Your task to perform on an android device: add a contact Image 0: 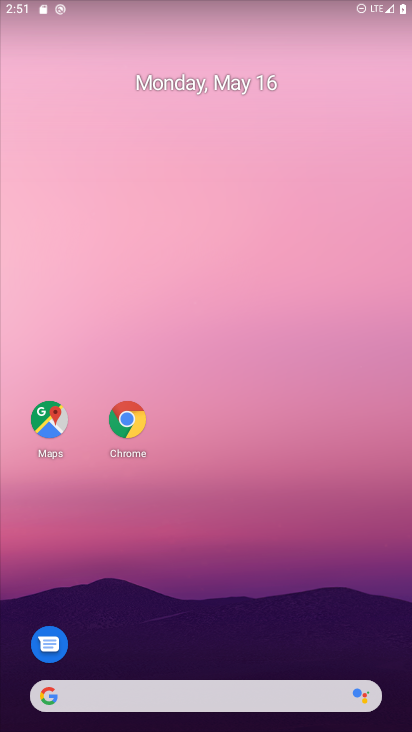
Step 0: drag from (183, 624) to (120, 155)
Your task to perform on an android device: add a contact Image 1: 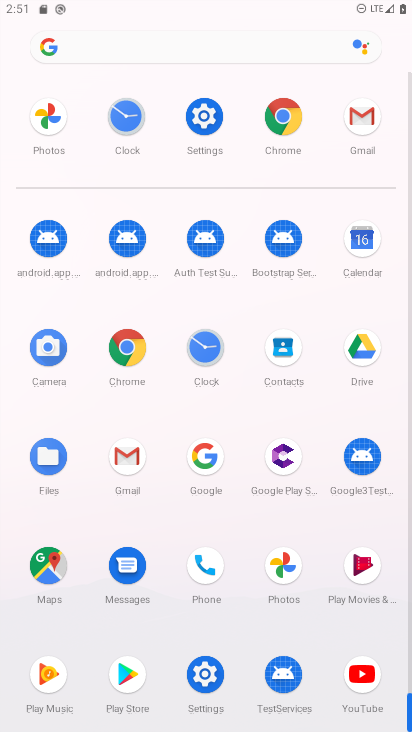
Step 1: click (285, 351)
Your task to perform on an android device: add a contact Image 2: 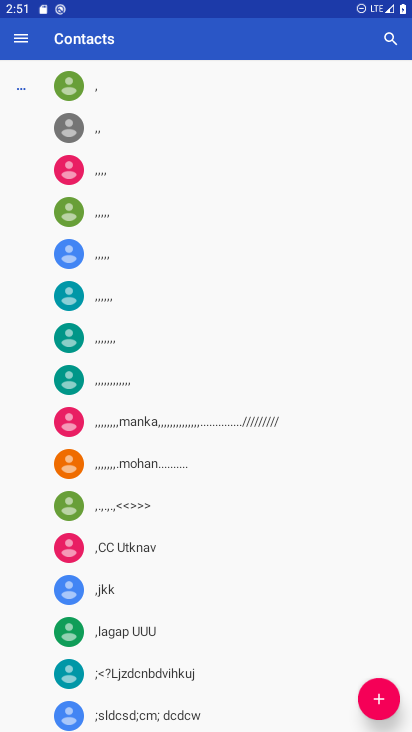
Step 2: drag from (252, 643) to (203, 331)
Your task to perform on an android device: add a contact Image 3: 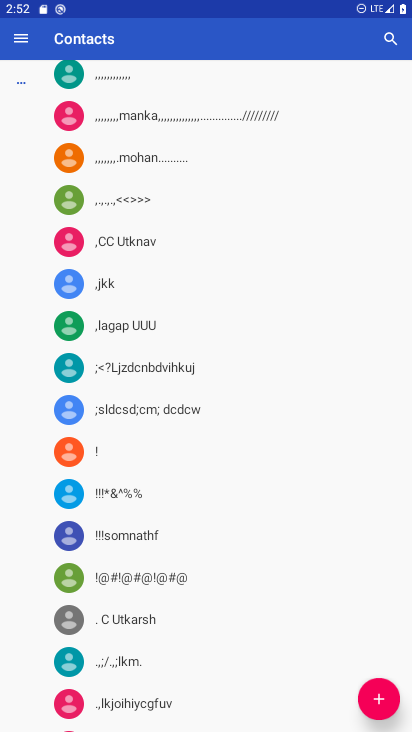
Step 3: drag from (153, 560) to (153, 277)
Your task to perform on an android device: add a contact Image 4: 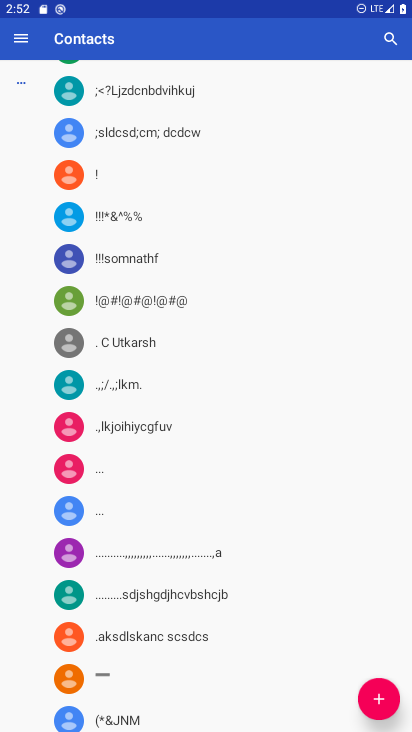
Step 4: drag from (197, 575) to (167, 303)
Your task to perform on an android device: add a contact Image 5: 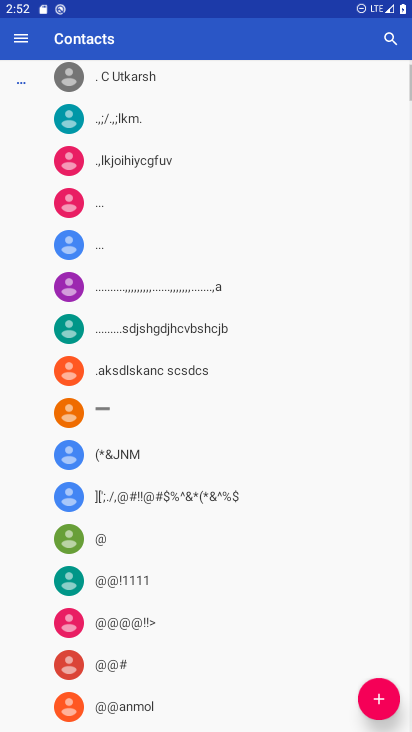
Step 5: click (383, 699)
Your task to perform on an android device: add a contact Image 6: 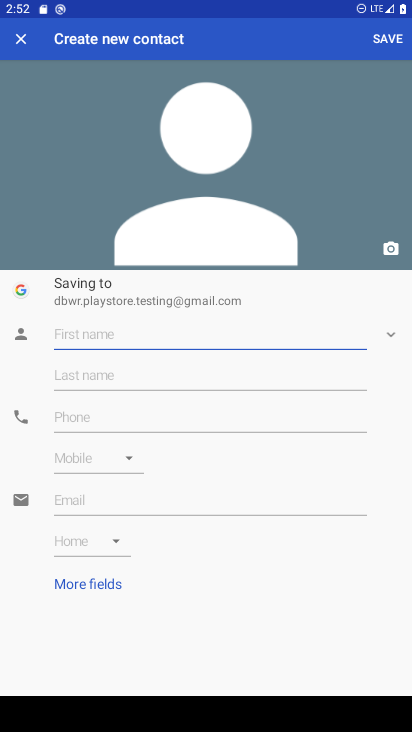
Step 6: click (129, 322)
Your task to perform on an android device: add a contact Image 7: 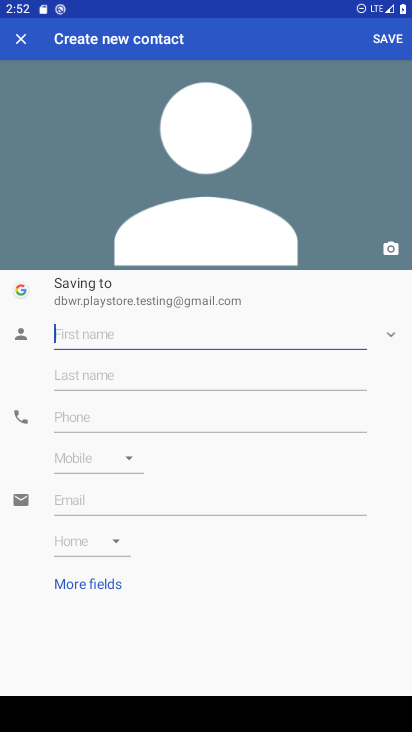
Step 7: type "fgtdv"
Your task to perform on an android device: add a contact Image 8: 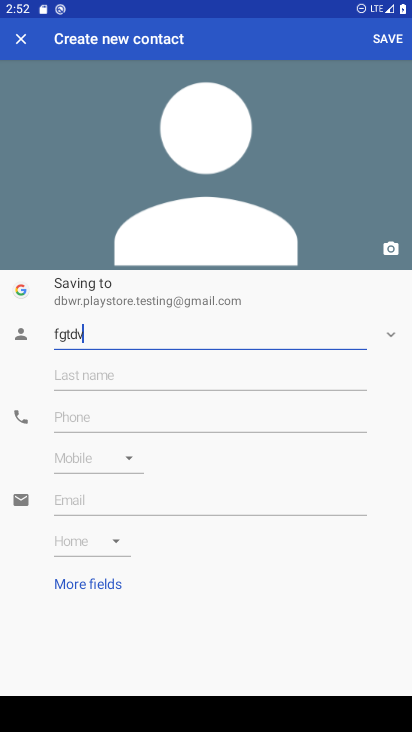
Step 8: click (390, 39)
Your task to perform on an android device: add a contact Image 9: 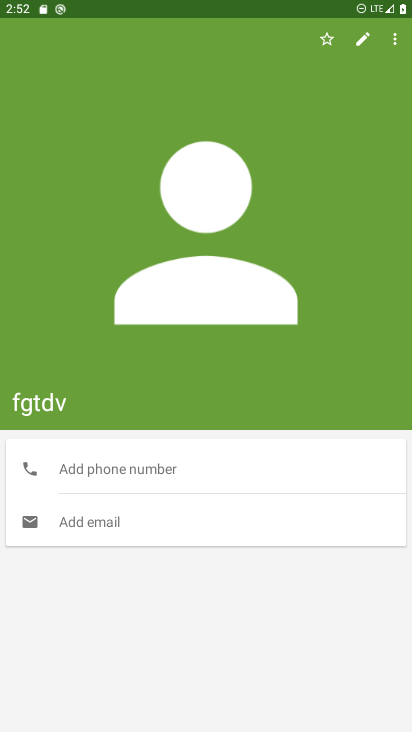
Step 9: task complete